Your task to perform on an android device: turn on bluetooth scan Image 0: 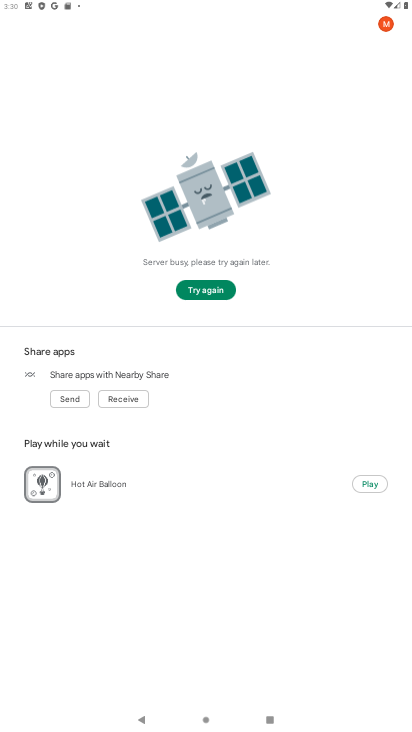
Step 0: press home button
Your task to perform on an android device: turn on bluetooth scan Image 1: 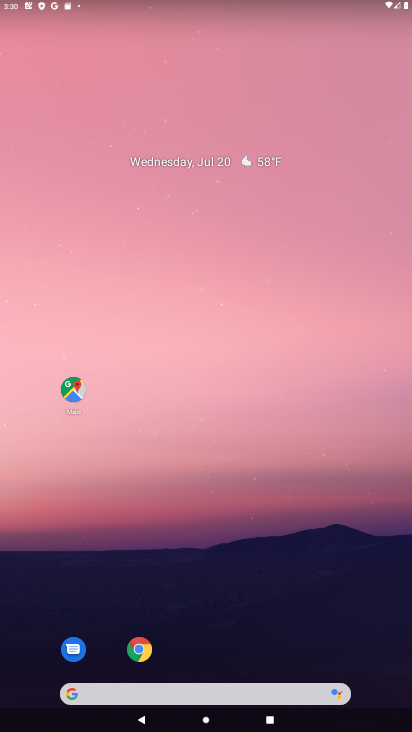
Step 1: drag from (250, 708) to (248, 247)
Your task to perform on an android device: turn on bluetooth scan Image 2: 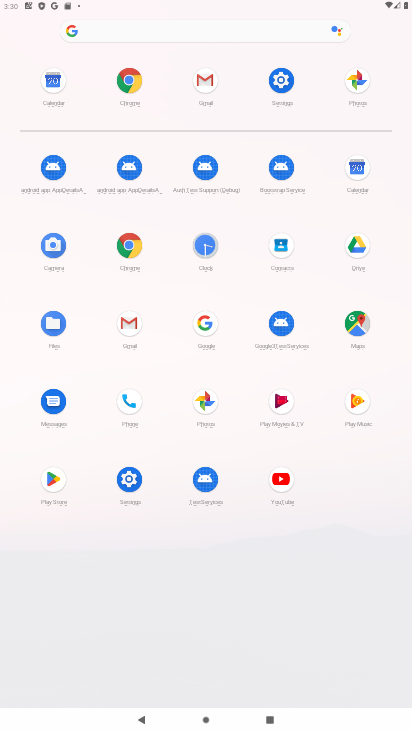
Step 2: click (279, 86)
Your task to perform on an android device: turn on bluetooth scan Image 3: 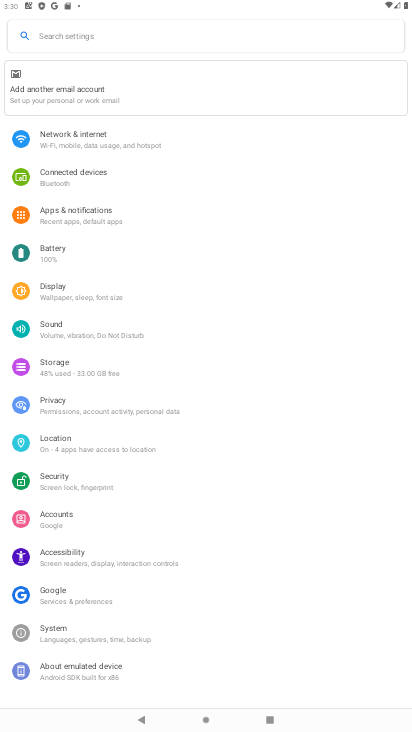
Step 3: click (63, 439)
Your task to perform on an android device: turn on bluetooth scan Image 4: 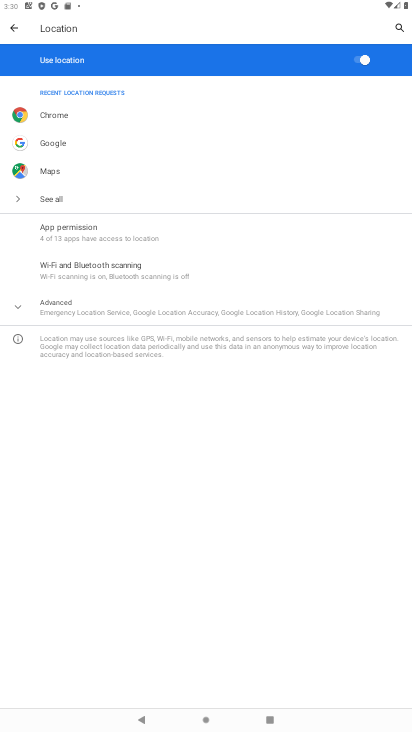
Step 4: click (130, 271)
Your task to perform on an android device: turn on bluetooth scan Image 5: 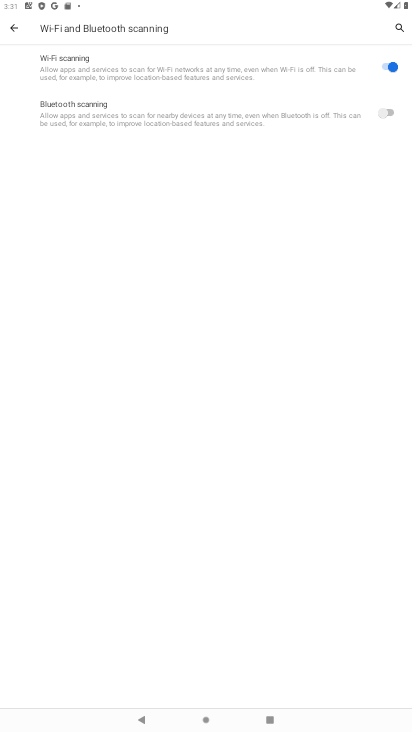
Step 5: click (388, 109)
Your task to perform on an android device: turn on bluetooth scan Image 6: 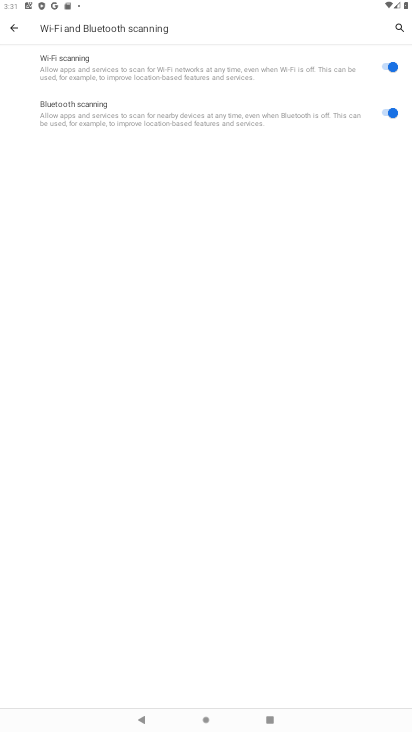
Step 6: task complete